Your task to perform on an android device: Show me productivity apps on the Play Store Image 0: 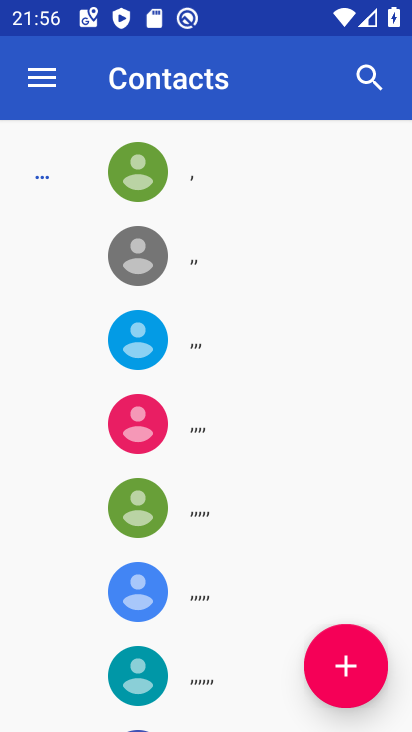
Step 0: press home button
Your task to perform on an android device: Show me productivity apps on the Play Store Image 1: 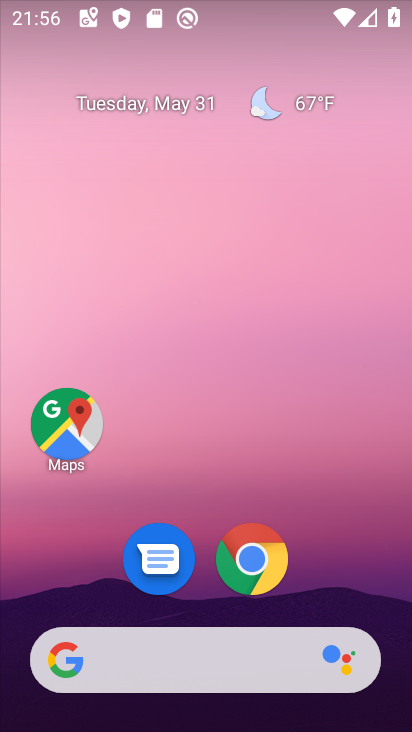
Step 1: drag from (342, 514) to (361, 46)
Your task to perform on an android device: Show me productivity apps on the Play Store Image 2: 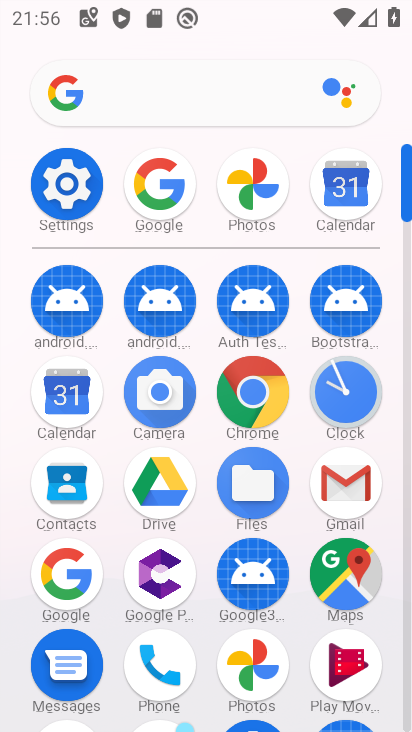
Step 2: drag from (202, 651) to (212, 251)
Your task to perform on an android device: Show me productivity apps on the Play Store Image 3: 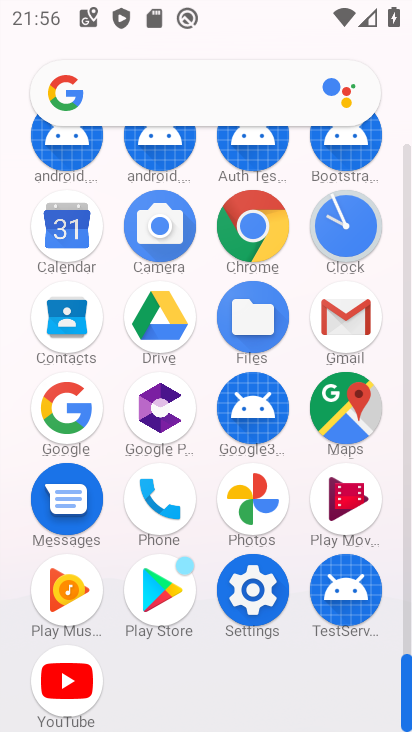
Step 3: click (161, 586)
Your task to perform on an android device: Show me productivity apps on the Play Store Image 4: 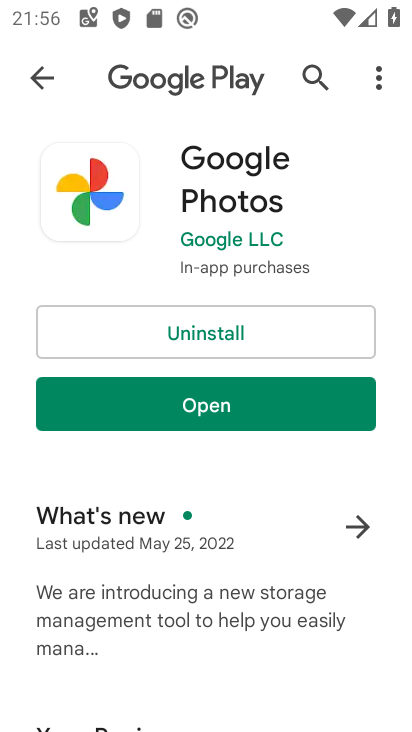
Step 4: press back button
Your task to perform on an android device: Show me productivity apps on the Play Store Image 5: 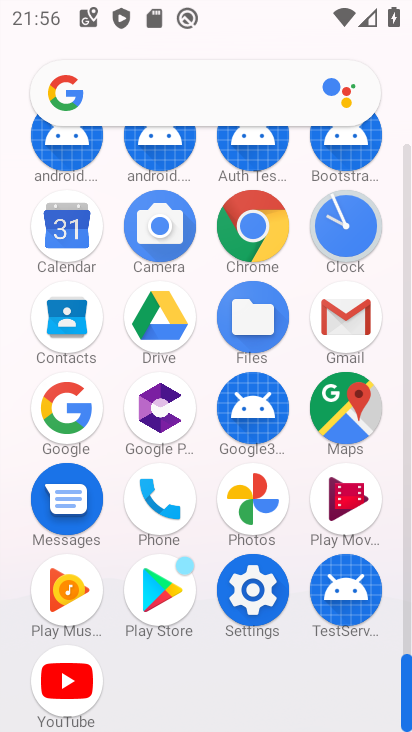
Step 5: click (172, 593)
Your task to perform on an android device: Show me productivity apps on the Play Store Image 6: 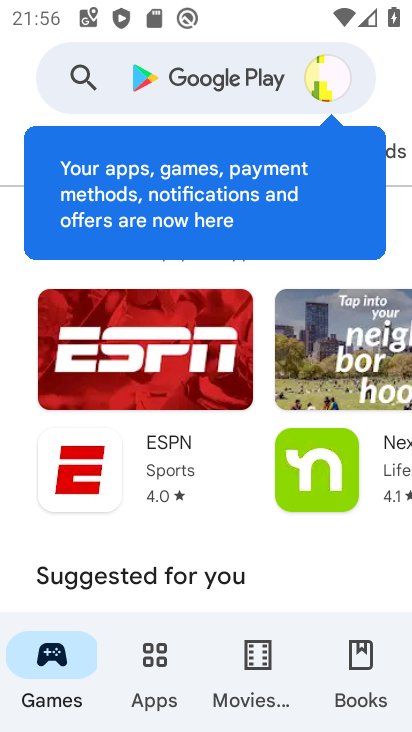
Step 6: click (165, 664)
Your task to perform on an android device: Show me productivity apps on the Play Store Image 7: 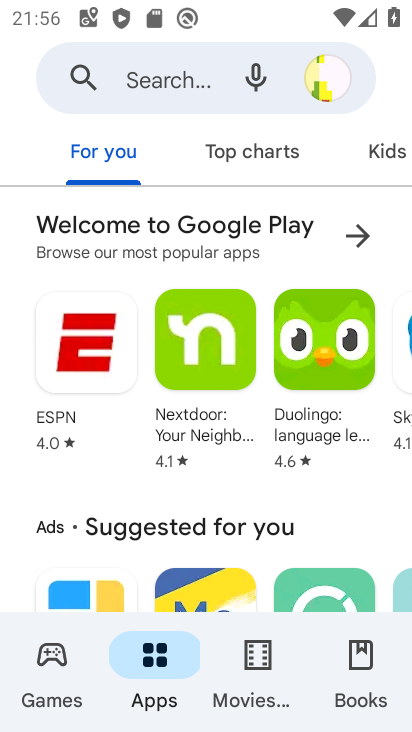
Step 7: drag from (372, 149) to (39, 157)
Your task to perform on an android device: Show me productivity apps on the Play Store Image 8: 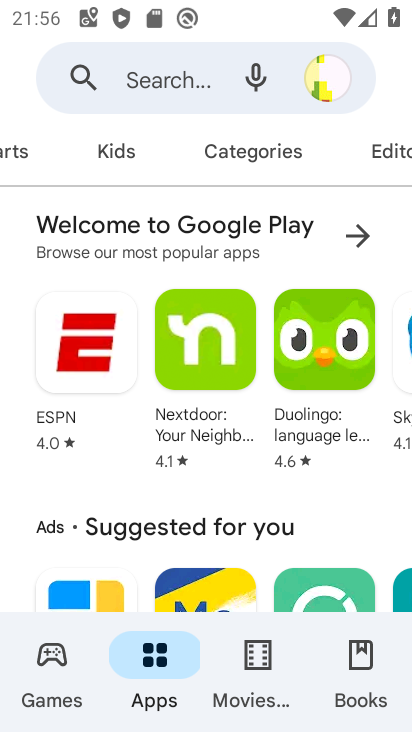
Step 8: click (251, 151)
Your task to perform on an android device: Show me productivity apps on the Play Store Image 9: 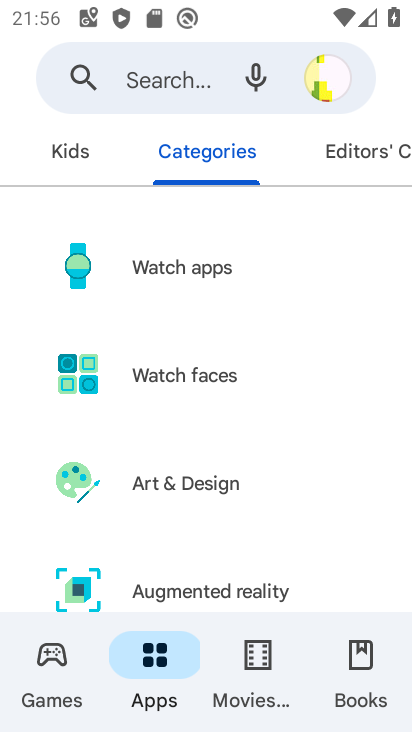
Step 9: drag from (258, 542) to (278, 11)
Your task to perform on an android device: Show me productivity apps on the Play Store Image 10: 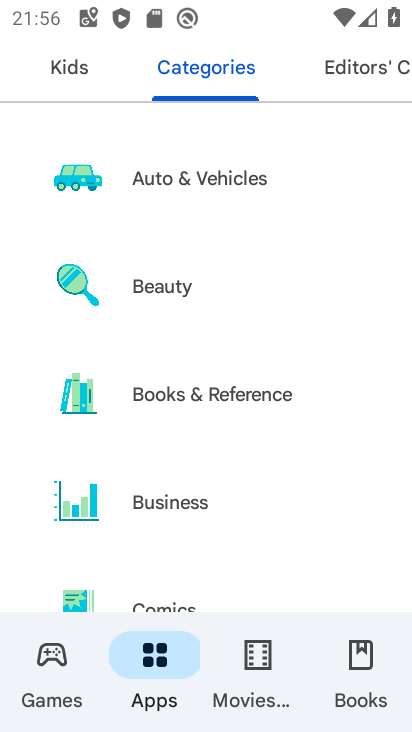
Step 10: drag from (297, 546) to (311, 5)
Your task to perform on an android device: Show me productivity apps on the Play Store Image 11: 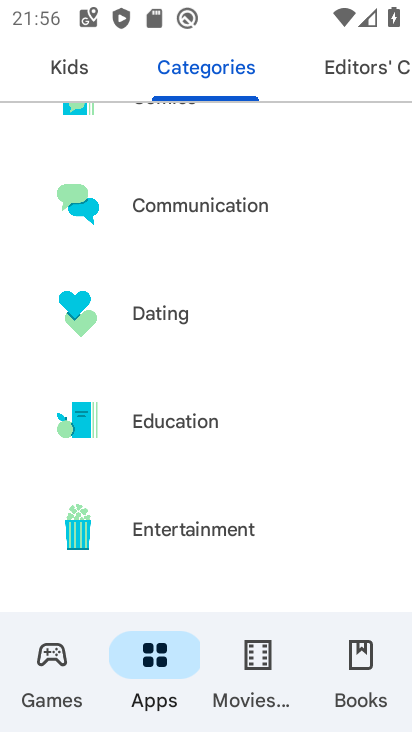
Step 11: drag from (223, 559) to (227, 98)
Your task to perform on an android device: Show me productivity apps on the Play Store Image 12: 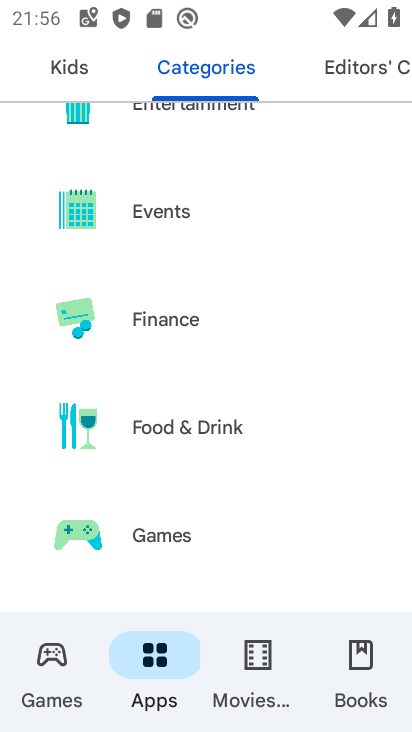
Step 12: drag from (210, 576) to (234, 93)
Your task to perform on an android device: Show me productivity apps on the Play Store Image 13: 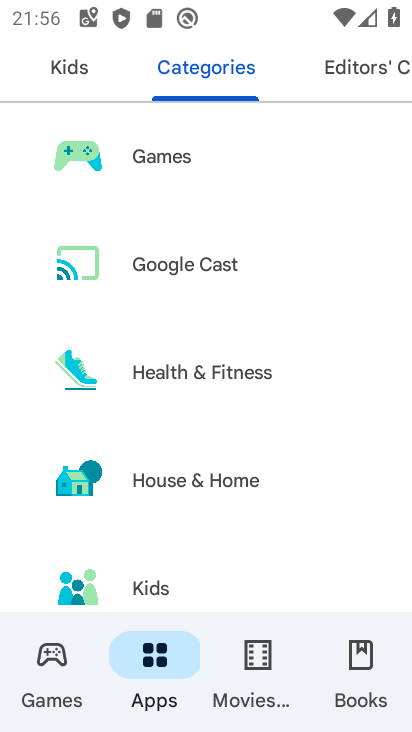
Step 13: drag from (224, 609) to (212, 269)
Your task to perform on an android device: Show me productivity apps on the Play Store Image 14: 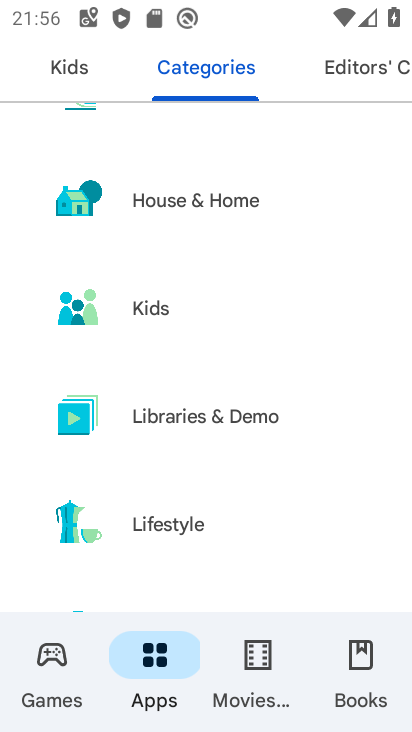
Step 14: drag from (210, 536) to (209, 96)
Your task to perform on an android device: Show me productivity apps on the Play Store Image 15: 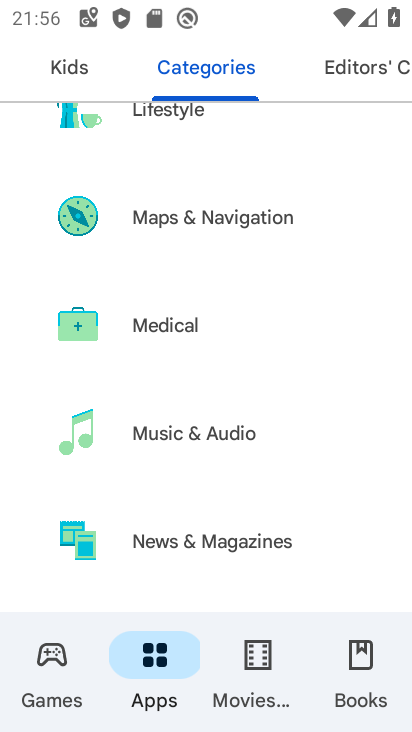
Step 15: drag from (284, 527) to (278, 67)
Your task to perform on an android device: Show me productivity apps on the Play Store Image 16: 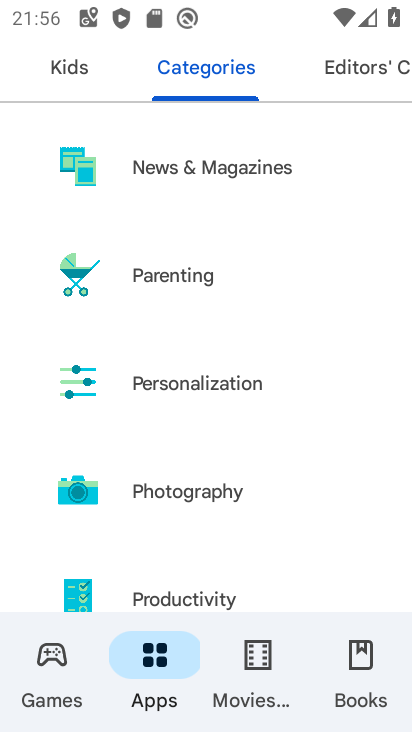
Step 16: click (164, 588)
Your task to perform on an android device: Show me productivity apps on the Play Store Image 17: 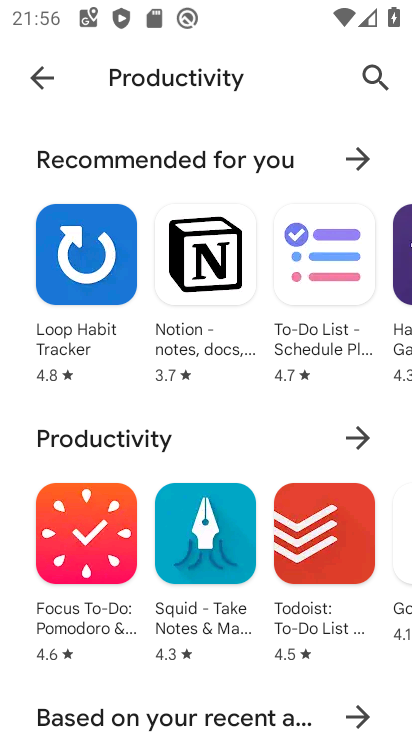
Step 17: task complete